Your task to perform on an android device: show emergency info Image 0: 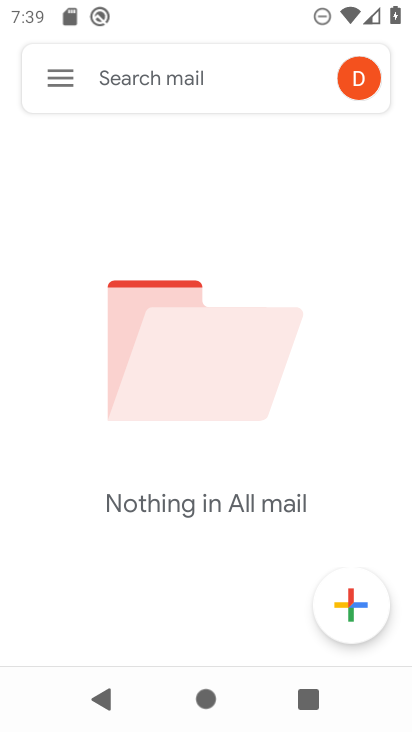
Step 0: press home button
Your task to perform on an android device: show emergency info Image 1: 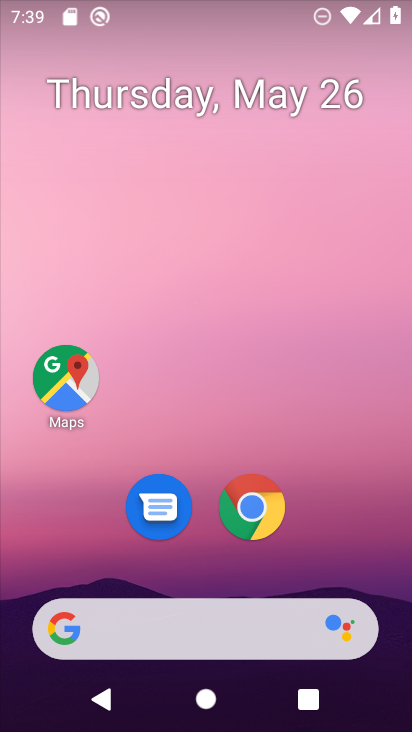
Step 1: drag from (199, 578) to (199, 84)
Your task to perform on an android device: show emergency info Image 2: 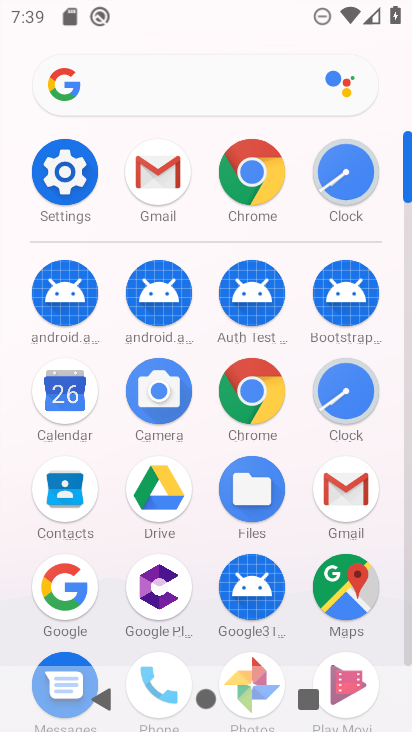
Step 2: click (66, 182)
Your task to perform on an android device: show emergency info Image 3: 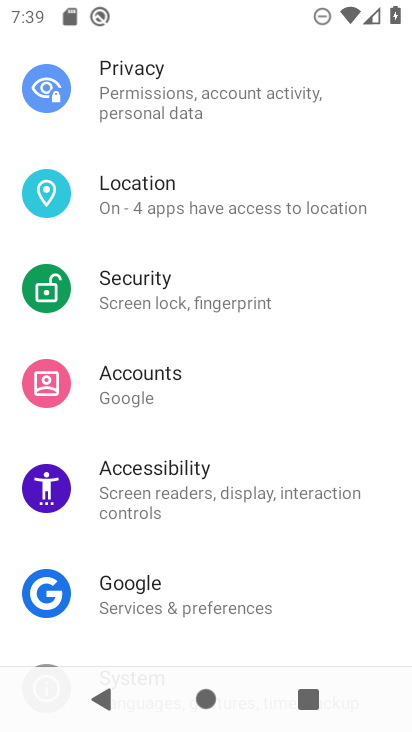
Step 3: drag from (227, 609) to (251, 124)
Your task to perform on an android device: show emergency info Image 4: 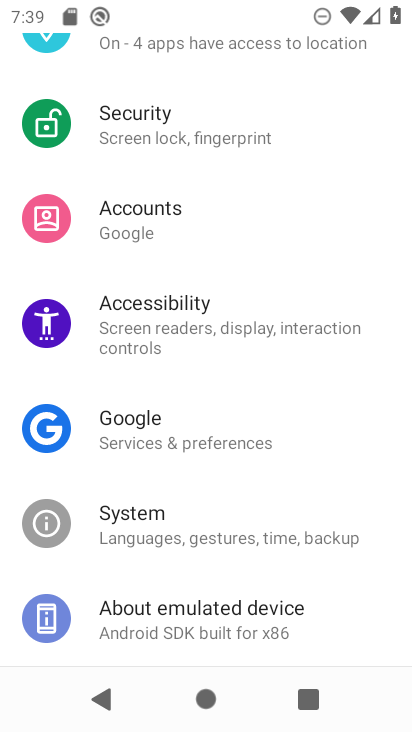
Step 4: click (186, 626)
Your task to perform on an android device: show emergency info Image 5: 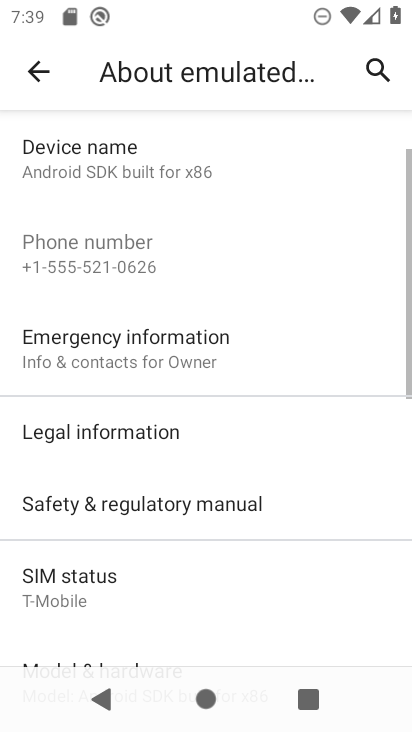
Step 5: click (84, 359)
Your task to perform on an android device: show emergency info Image 6: 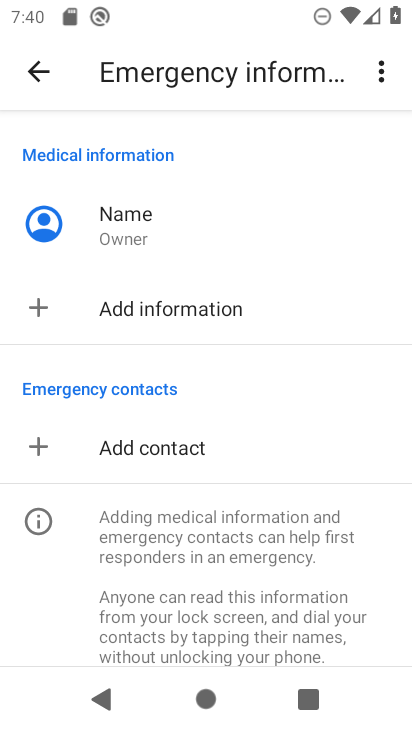
Step 6: task complete